Your task to perform on an android device: Go to display settings Image 0: 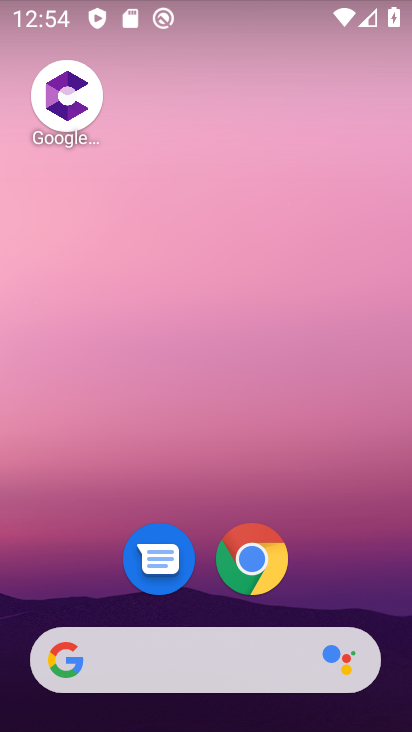
Step 0: drag from (327, 586) to (314, 151)
Your task to perform on an android device: Go to display settings Image 1: 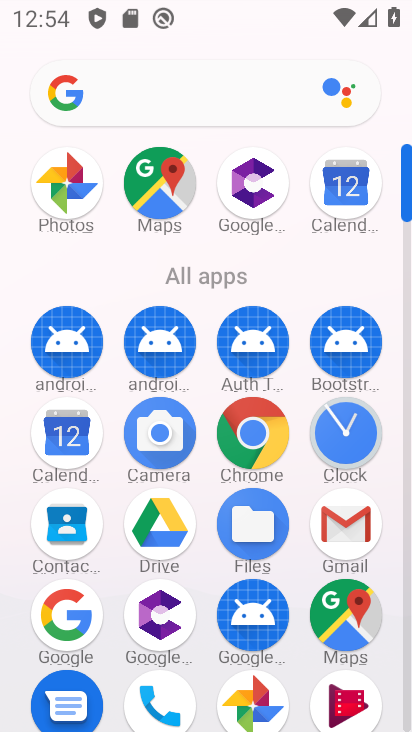
Step 1: drag from (201, 649) to (289, 247)
Your task to perform on an android device: Go to display settings Image 2: 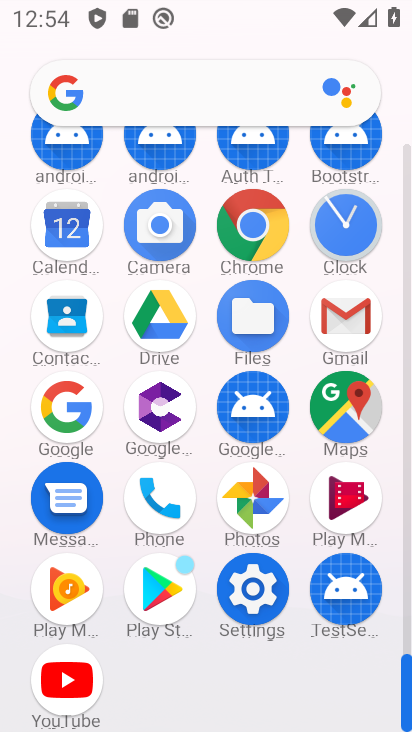
Step 2: click (251, 600)
Your task to perform on an android device: Go to display settings Image 3: 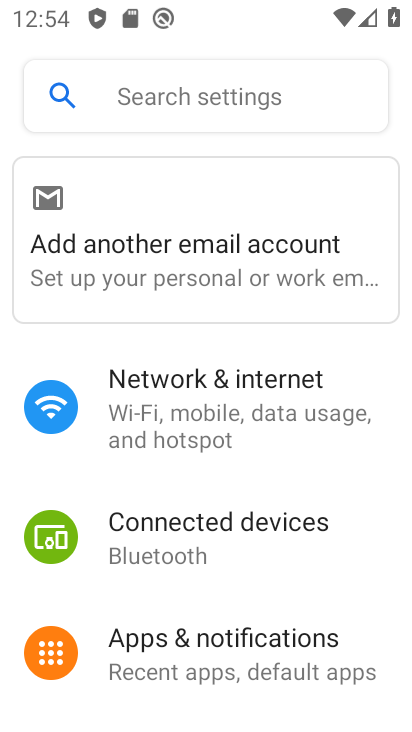
Step 3: drag from (210, 612) to (269, 163)
Your task to perform on an android device: Go to display settings Image 4: 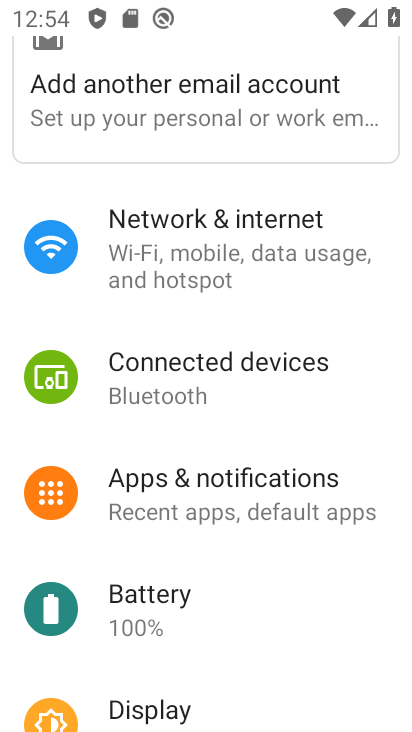
Step 4: drag from (186, 630) to (221, 352)
Your task to perform on an android device: Go to display settings Image 5: 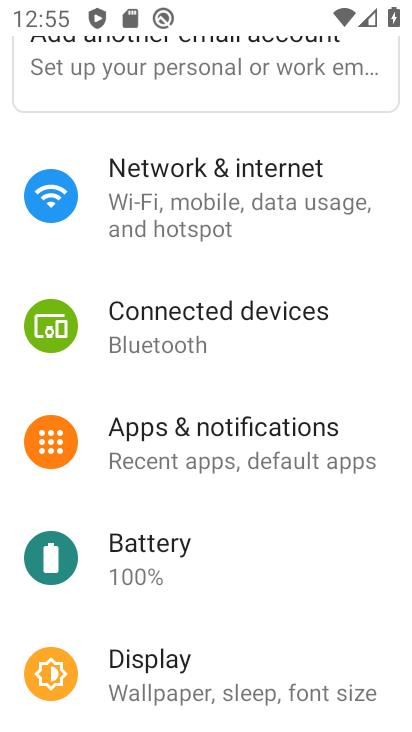
Step 5: drag from (202, 655) to (279, 380)
Your task to perform on an android device: Go to display settings Image 6: 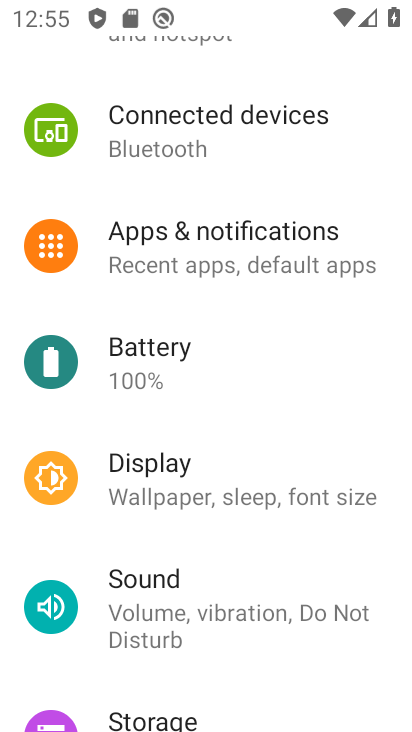
Step 6: click (226, 504)
Your task to perform on an android device: Go to display settings Image 7: 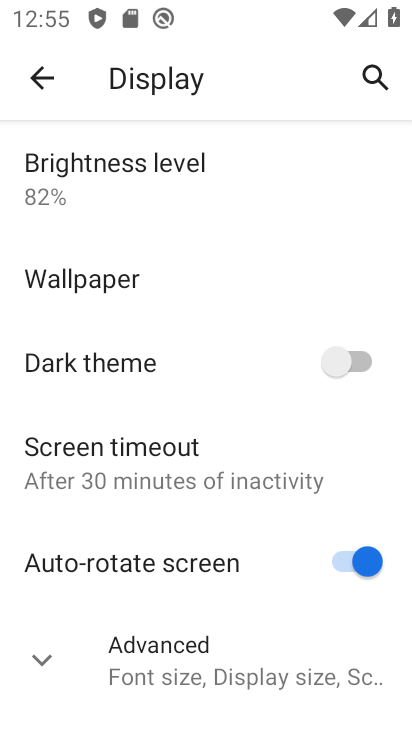
Step 7: task complete